Your task to perform on an android device: turn on javascript in the chrome app Image 0: 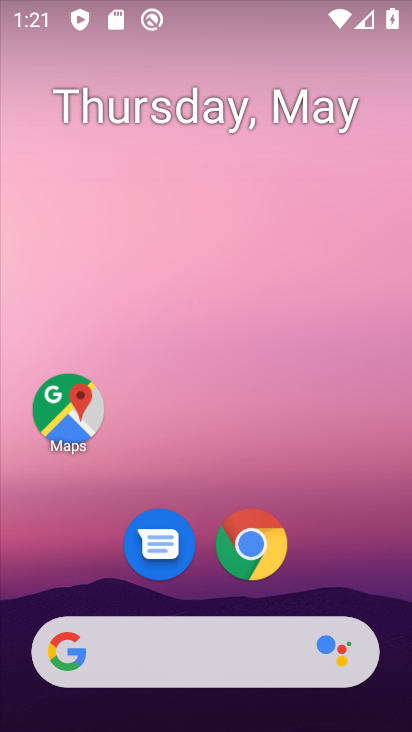
Step 0: click (263, 561)
Your task to perform on an android device: turn on javascript in the chrome app Image 1: 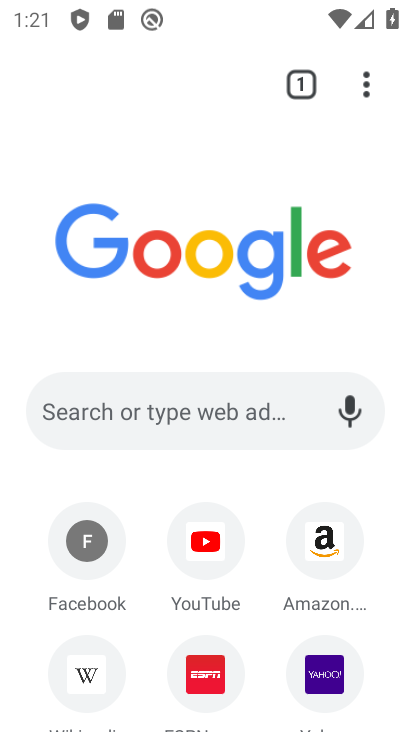
Step 1: drag from (364, 87) to (253, 604)
Your task to perform on an android device: turn on javascript in the chrome app Image 2: 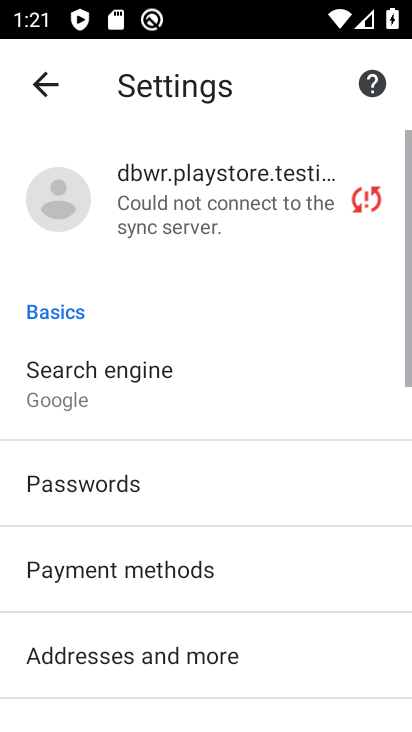
Step 2: drag from (233, 613) to (272, 207)
Your task to perform on an android device: turn on javascript in the chrome app Image 3: 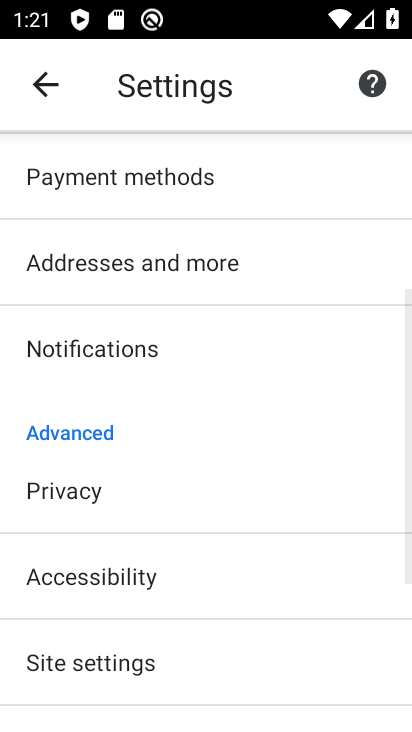
Step 3: drag from (207, 586) to (239, 316)
Your task to perform on an android device: turn on javascript in the chrome app Image 4: 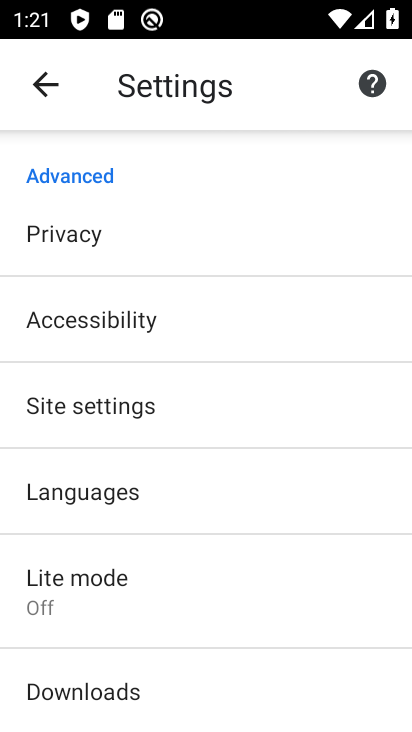
Step 4: click (148, 412)
Your task to perform on an android device: turn on javascript in the chrome app Image 5: 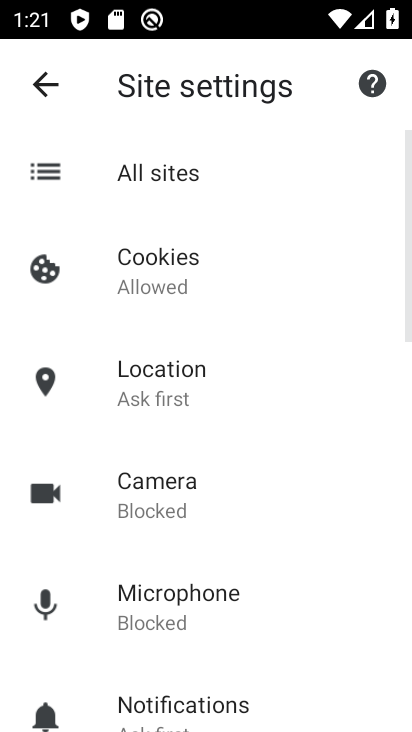
Step 5: drag from (249, 268) to (256, 223)
Your task to perform on an android device: turn on javascript in the chrome app Image 6: 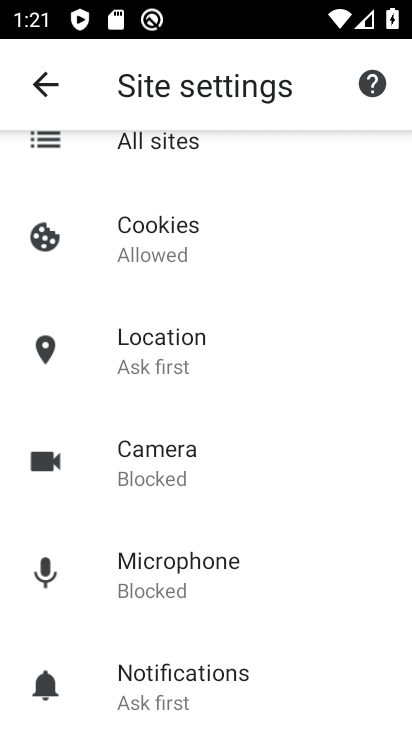
Step 6: drag from (234, 650) to (321, 156)
Your task to perform on an android device: turn on javascript in the chrome app Image 7: 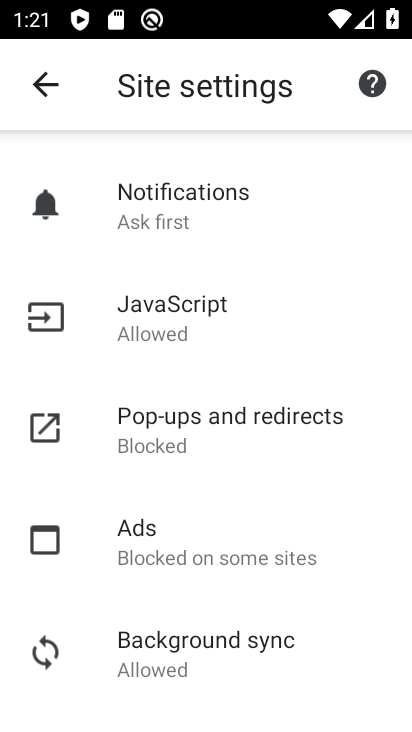
Step 7: click (203, 326)
Your task to perform on an android device: turn on javascript in the chrome app Image 8: 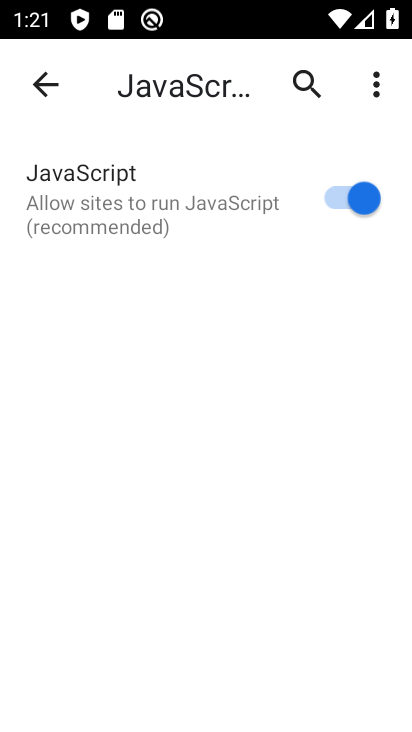
Step 8: task complete